Your task to perform on an android device: set the timer Image 0: 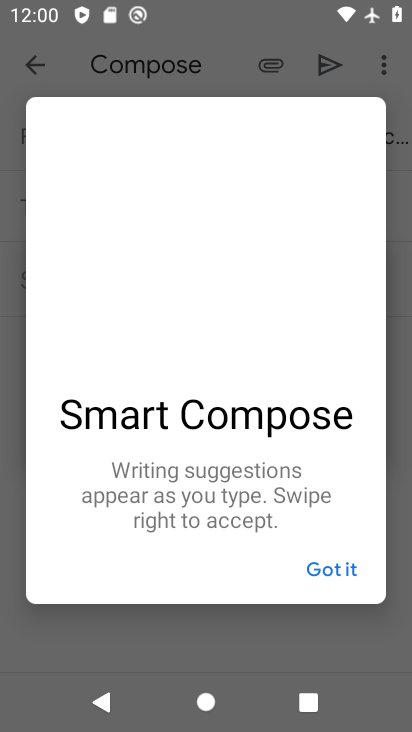
Step 0: press home button
Your task to perform on an android device: set the timer Image 1: 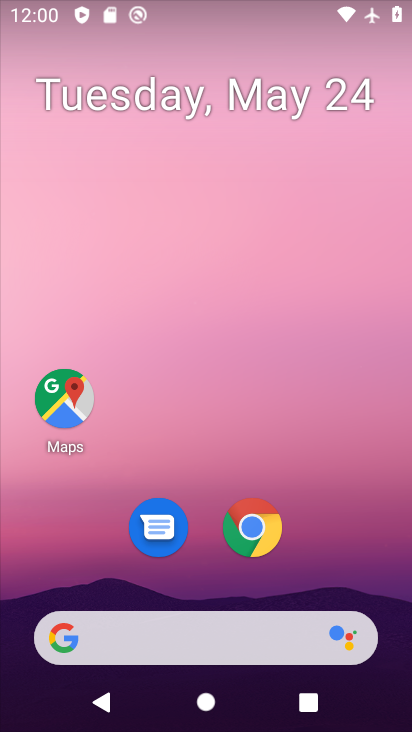
Step 1: drag from (170, 650) to (308, 117)
Your task to perform on an android device: set the timer Image 2: 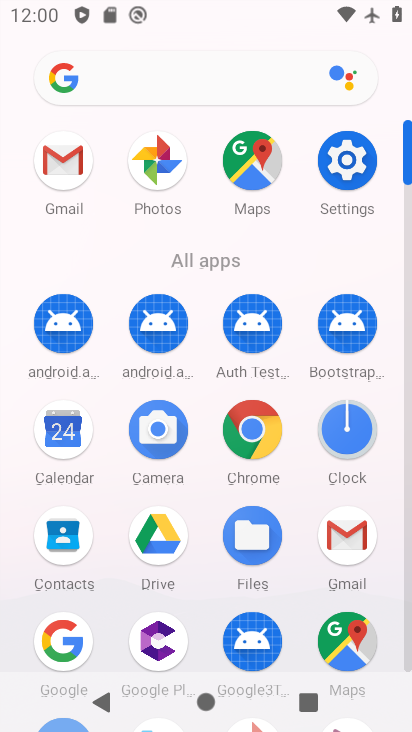
Step 2: click (350, 423)
Your task to perform on an android device: set the timer Image 3: 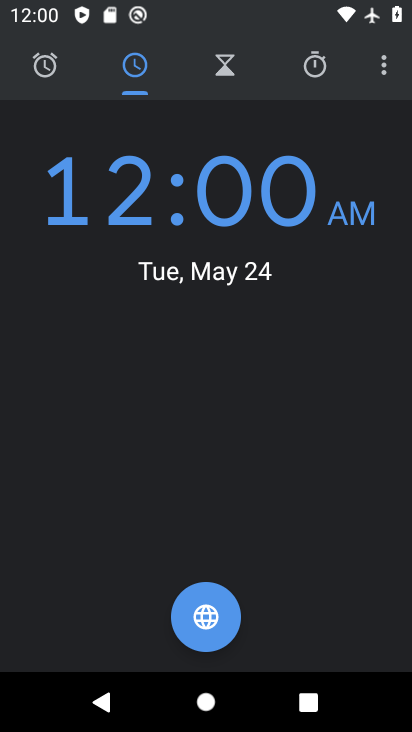
Step 3: click (239, 61)
Your task to perform on an android device: set the timer Image 4: 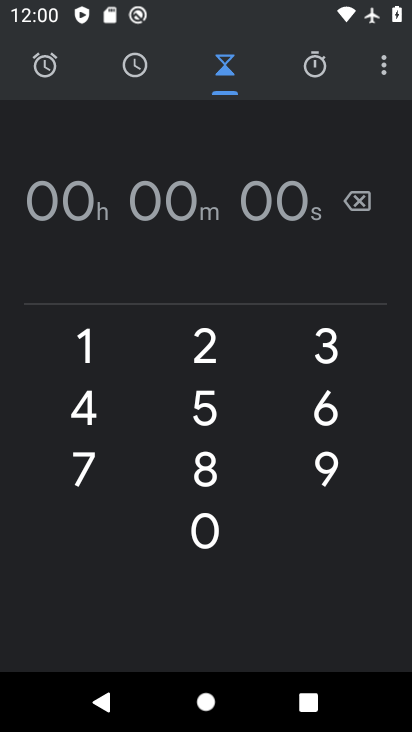
Step 4: click (91, 407)
Your task to perform on an android device: set the timer Image 5: 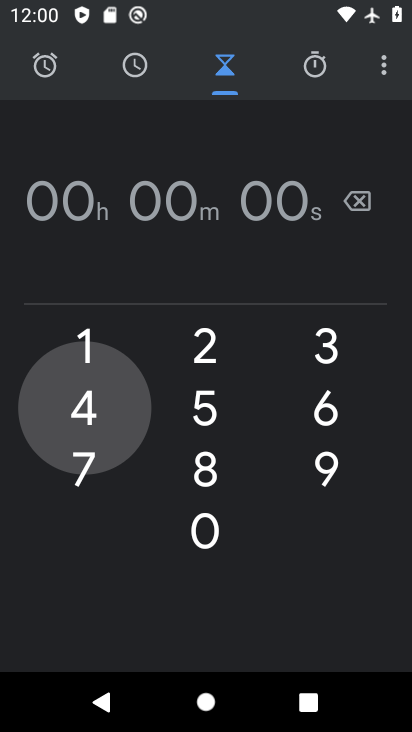
Step 5: click (208, 399)
Your task to perform on an android device: set the timer Image 6: 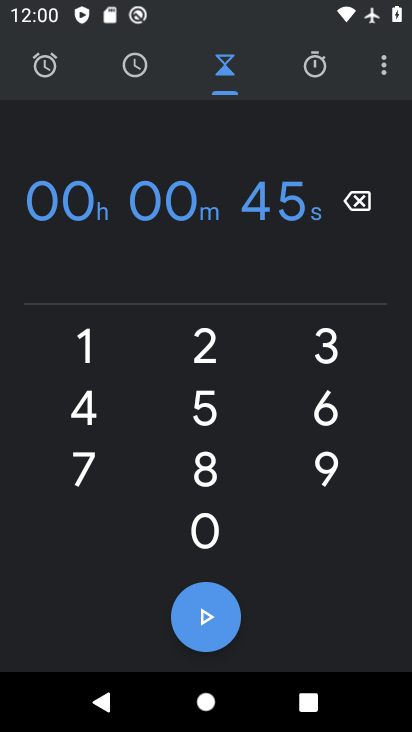
Step 6: click (215, 623)
Your task to perform on an android device: set the timer Image 7: 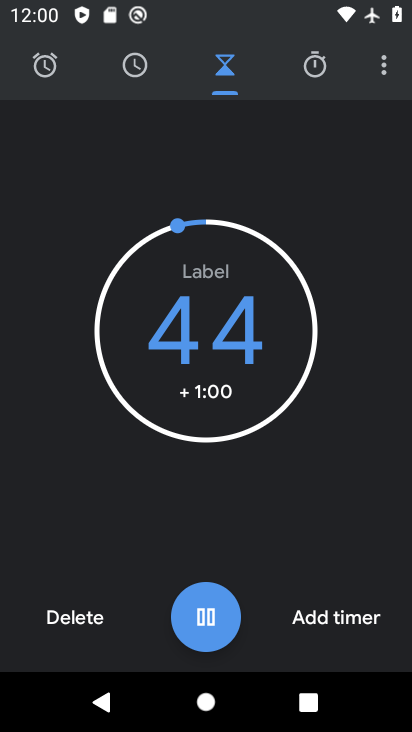
Step 7: click (208, 619)
Your task to perform on an android device: set the timer Image 8: 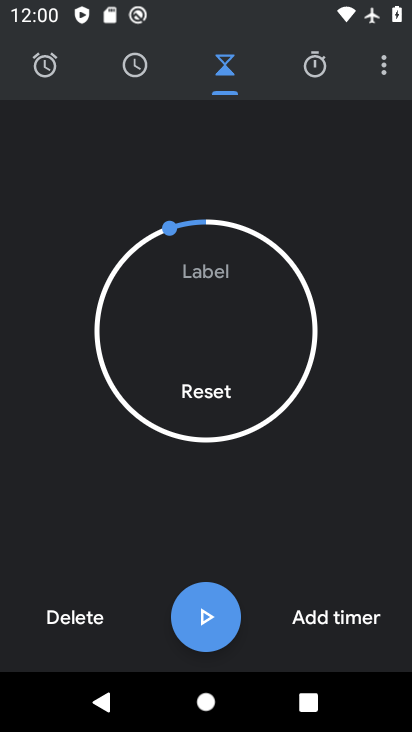
Step 8: task complete